Your task to perform on an android device: change keyboard looks Image 0: 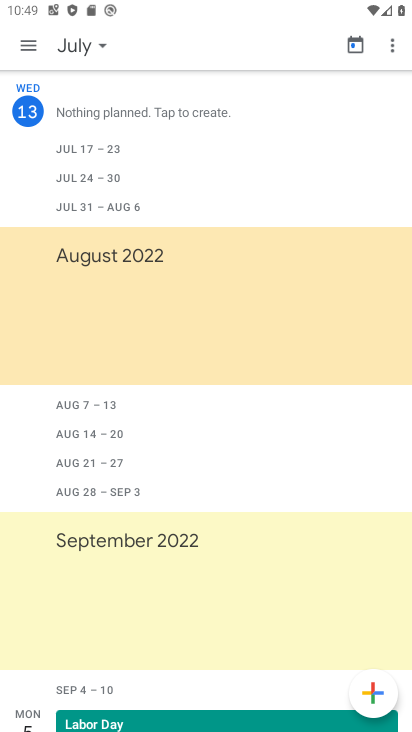
Step 0: press home button
Your task to perform on an android device: change keyboard looks Image 1: 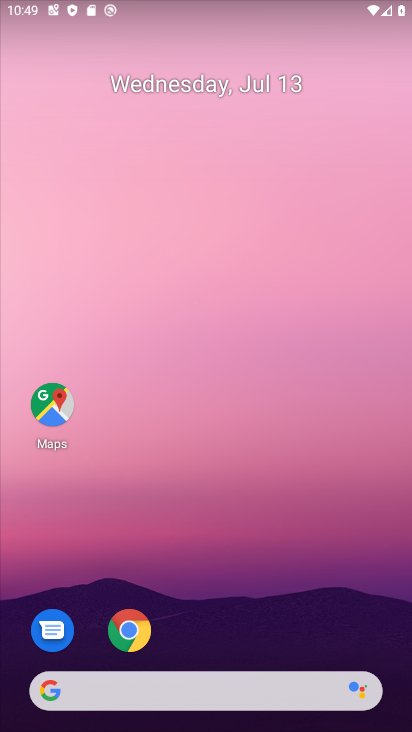
Step 1: drag from (221, 573) to (212, 166)
Your task to perform on an android device: change keyboard looks Image 2: 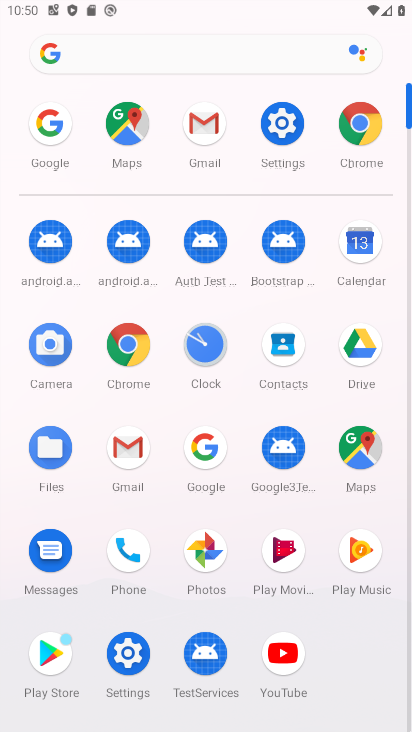
Step 2: click (269, 133)
Your task to perform on an android device: change keyboard looks Image 3: 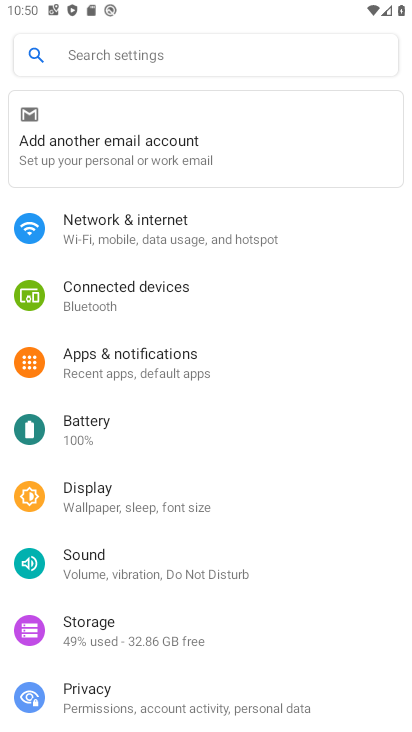
Step 3: drag from (187, 626) to (231, 175)
Your task to perform on an android device: change keyboard looks Image 4: 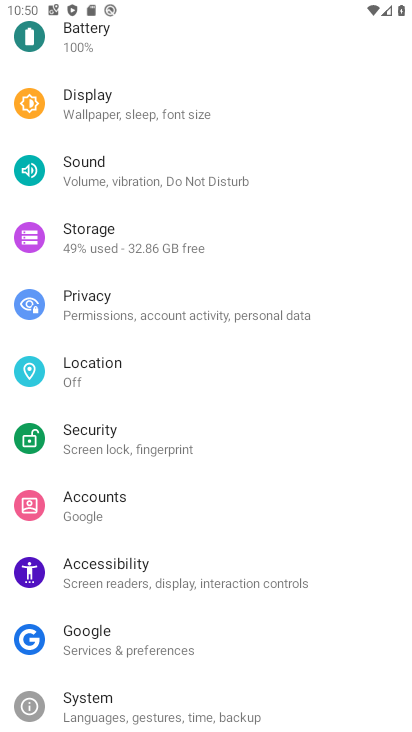
Step 4: drag from (117, 665) to (121, 245)
Your task to perform on an android device: change keyboard looks Image 5: 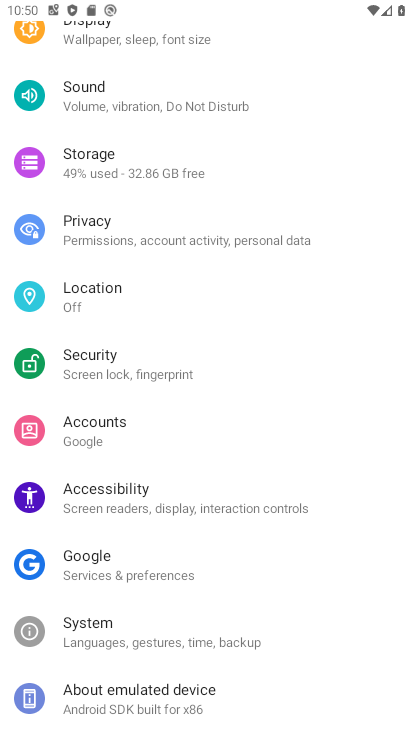
Step 5: click (162, 641)
Your task to perform on an android device: change keyboard looks Image 6: 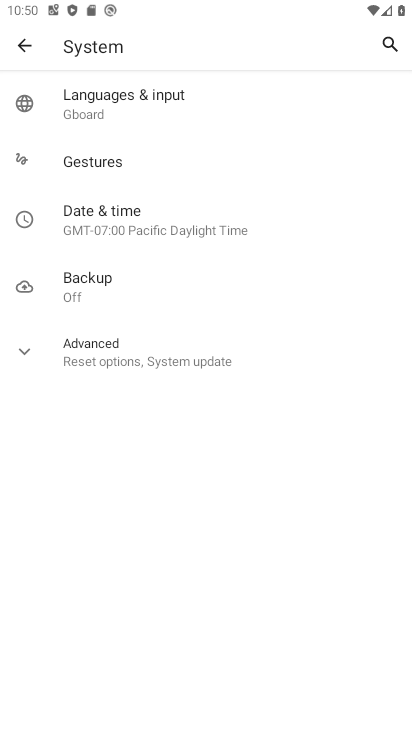
Step 6: click (116, 109)
Your task to perform on an android device: change keyboard looks Image 7: 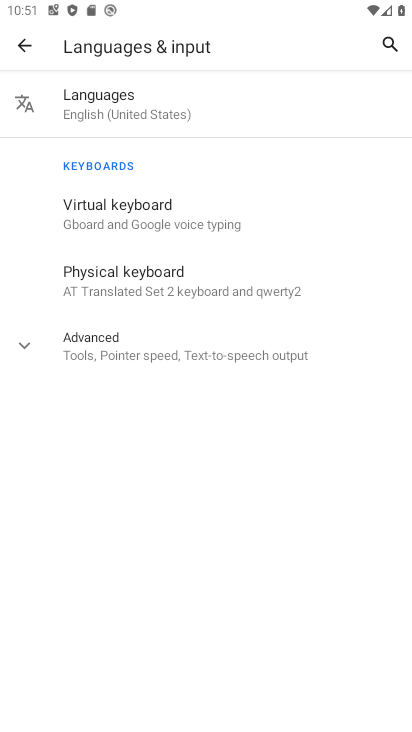
Step 7: click (173, 211)
Your task to perform on an android device: change keyboard looks Image 8: 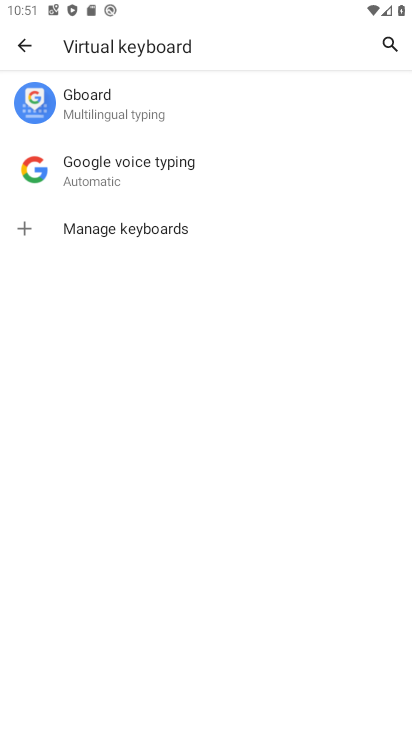
Step 8: click (98, 108)
Your task to perform on an android device: change keyboard looks Image 9: 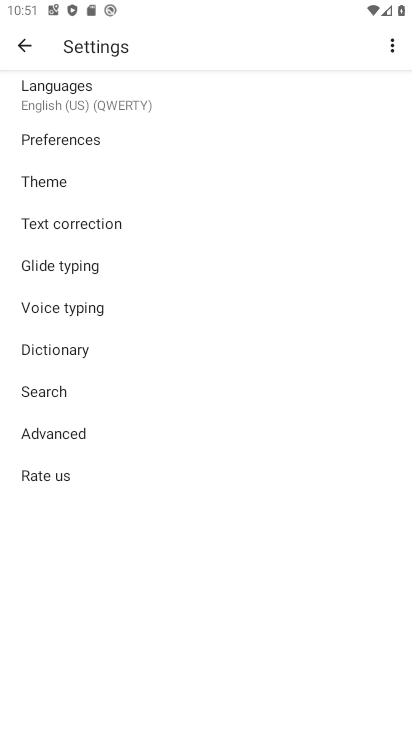
Step 9: click (40, 192)
Your task to perform on an android device: change keyboard looks Image 10: 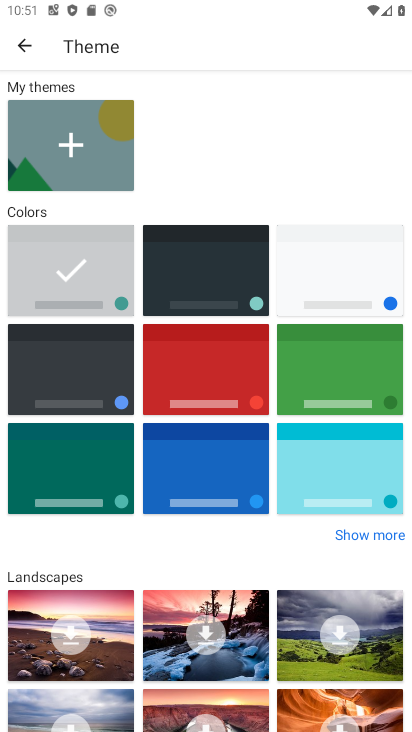
Step 10: click (195, 287)
Your task to perform on an android device: change keyboard looks Image 11: 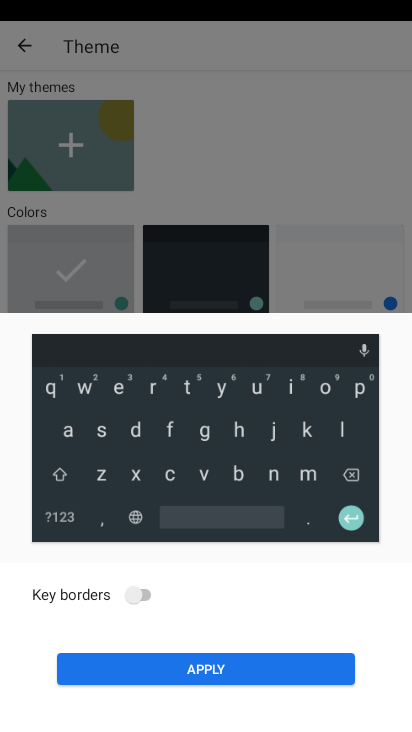
Step 11: click (217, 666)
Your task to perform on an android device: change keyboard looks Image 12: 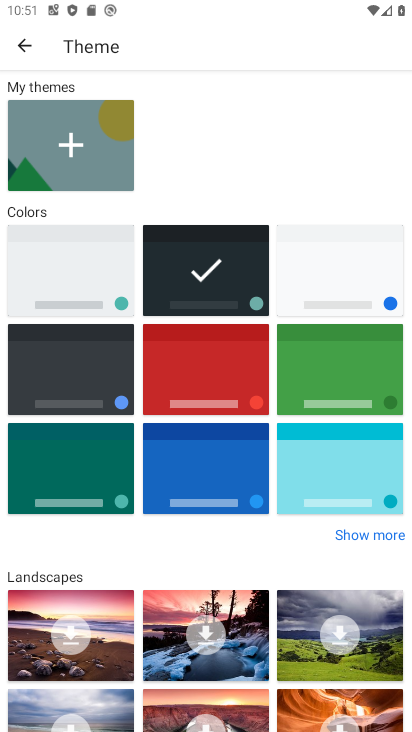
Step 12: task complete